Your task to perform on an android device: Open Chrome and go to settings Image 0: 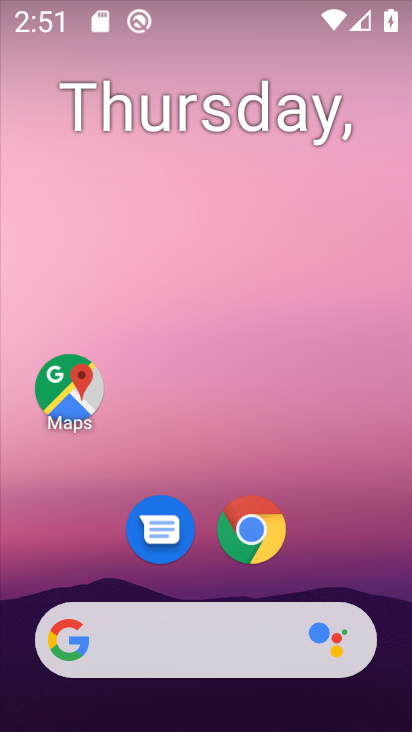
Step 0: click (236, 528)
Your task to perform on an android device: Open Chrome and go to settings Image 1: 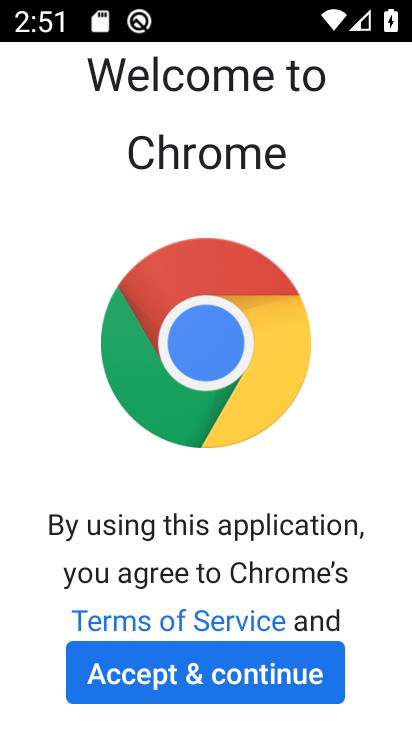
Step 1: click (257, 682)
Your task to perform on an android device: Open Chrome and go to settings Image 2: 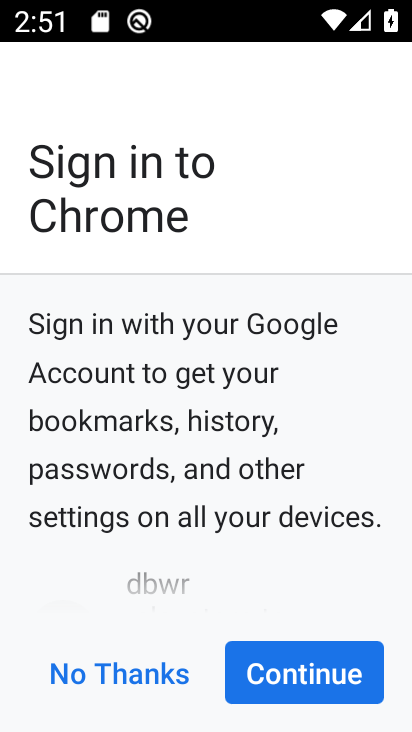
Step 2: click (255, 640)
Your task to perform on an android device: Open Chrome and go to settings Image 3: 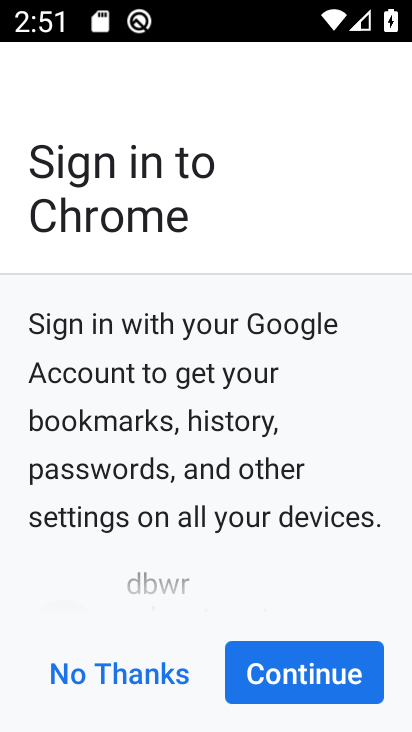
Step 3: click (250, 651)
Your task to perform on an android device: Open Chrome and go to settings Image 4: 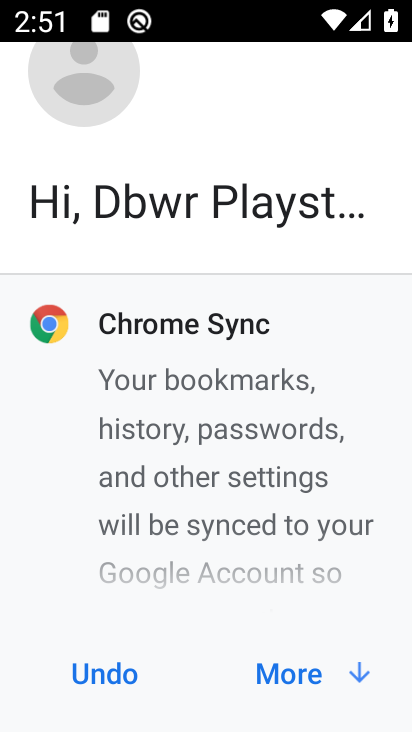
Step 4: click (251, 669)
Your task to perform on an android device: Open Chrome and go to settings Image 5: 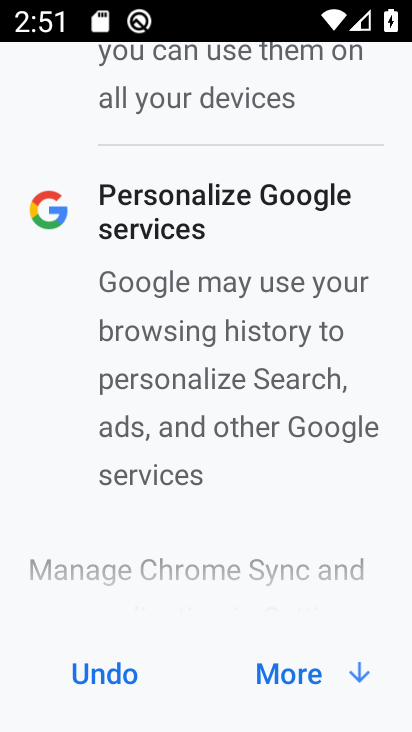
Step 5: click (251, 669)
Your task to perform on an android device: Open Chrome and go to settings Image 6: 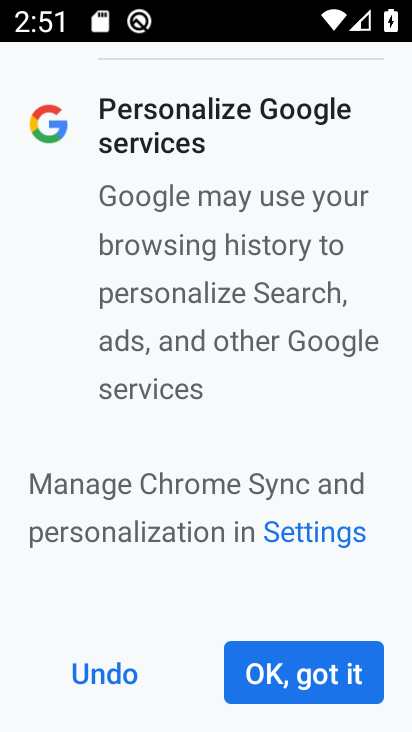
Step 6: click (250, 668)
Your task to perform on an android device: Open Chrome and go to settings Image 7: 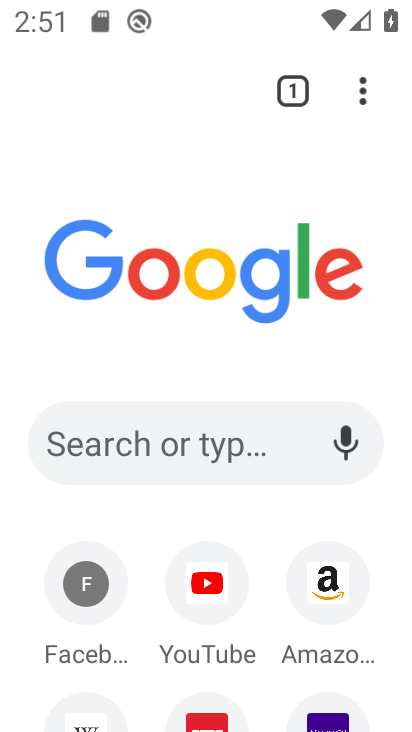
Step 7: click (360, 83)
Your task to perform on an android device: Open Chrome and go to settings Image 8: 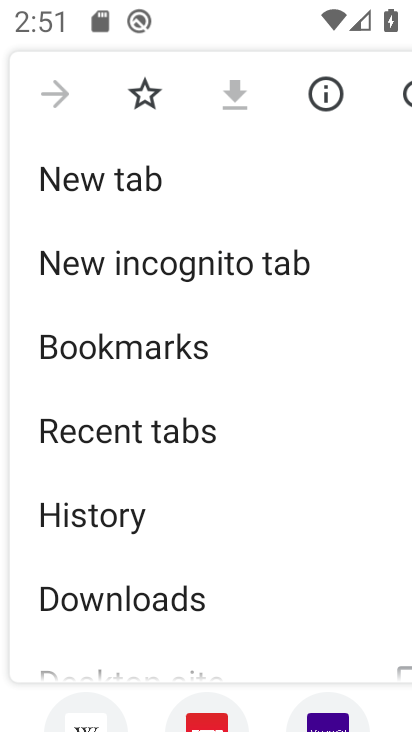
Step 8: drag from (322, 481) to (281, 110)
Your task to perform on an android device: Open Chrome and go to settings Image 9: 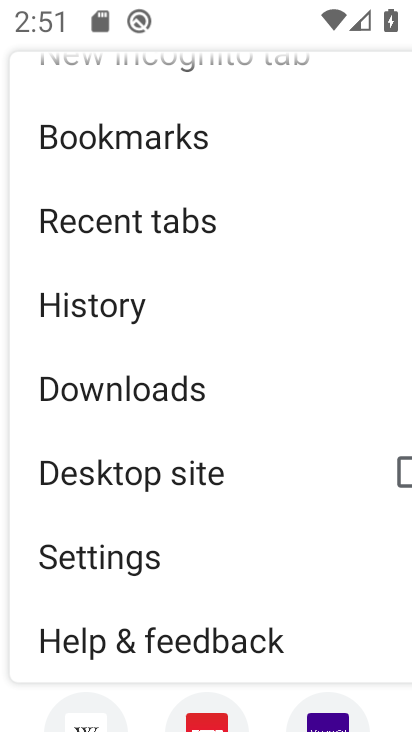
Step 9: click (215, 550)
Your task to perform on an android device: Open Chrome and go to settings Image 10: 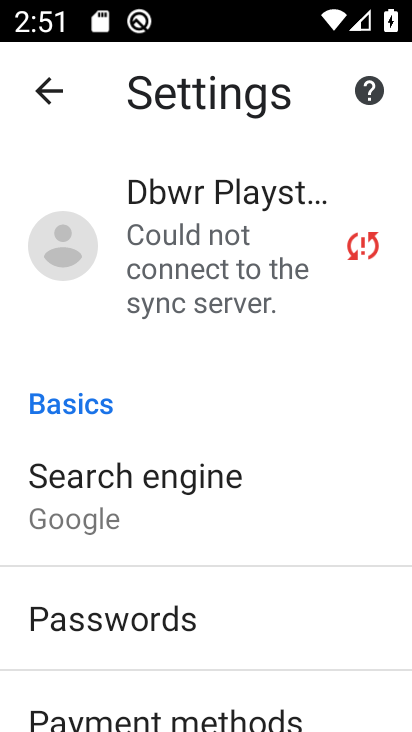
Step 10: task complete